Your task to perform on an android device: open wifi settings Image 0: 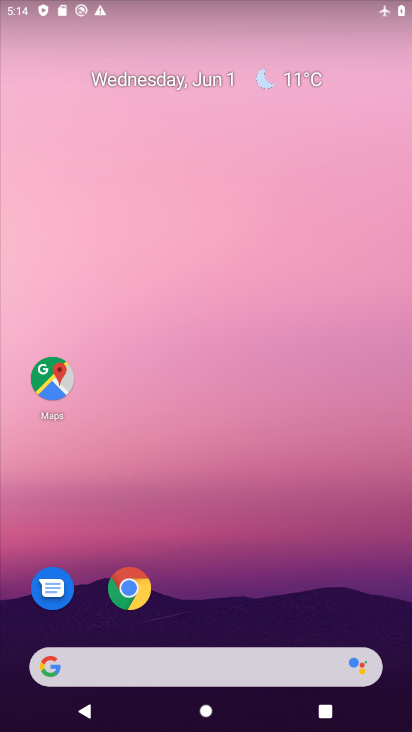
Step 0: drag from (212, 648) to (237, 200)
Your task to perform on an android device: open wifi settings Image 1: 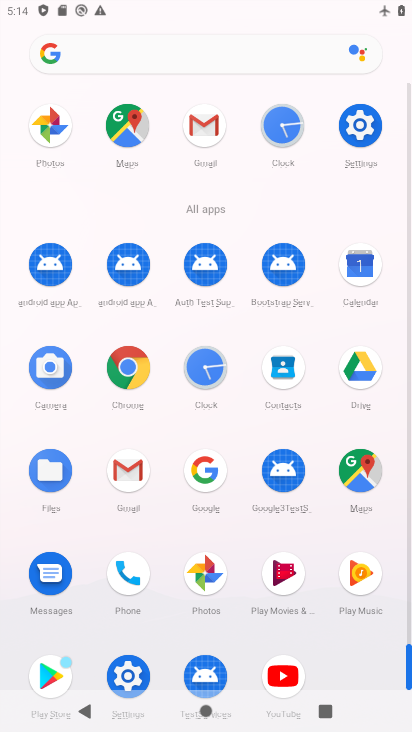
Step 1: drag from (153, 605) to (201, 303)
Your task to perform on an android device: open wifi settings Image 2: 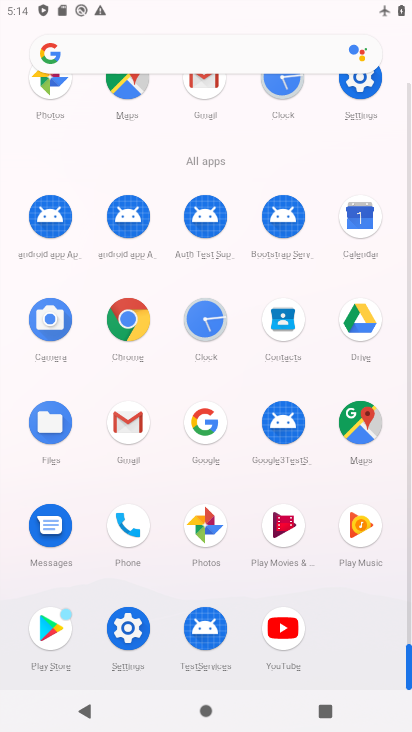
Step 2: click (122, 634)
Your task to perform on an android device: open wifi settings Image 3: 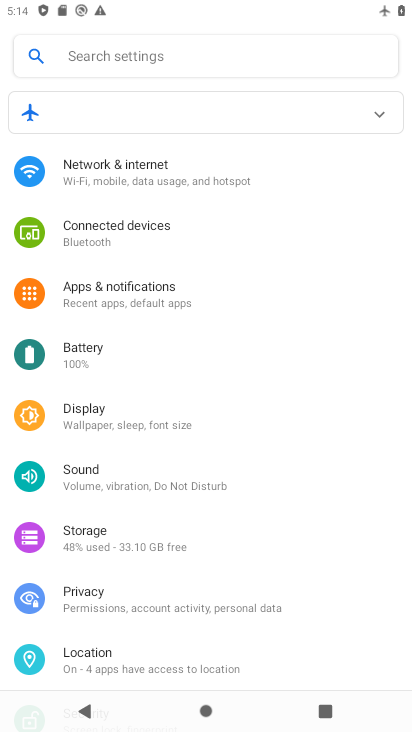
Step 3: click (160, 179)
Your task to perform on an android device: open wifi settings Image 4: 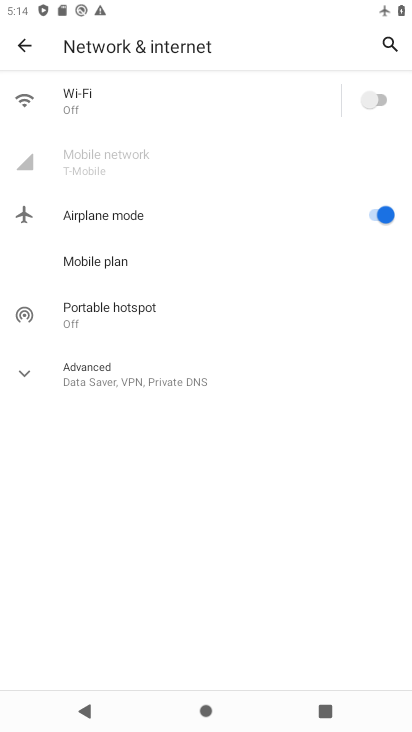
Step 4: click (194, 115)
Your task to perform on an android device: open wifi settings Image 5: 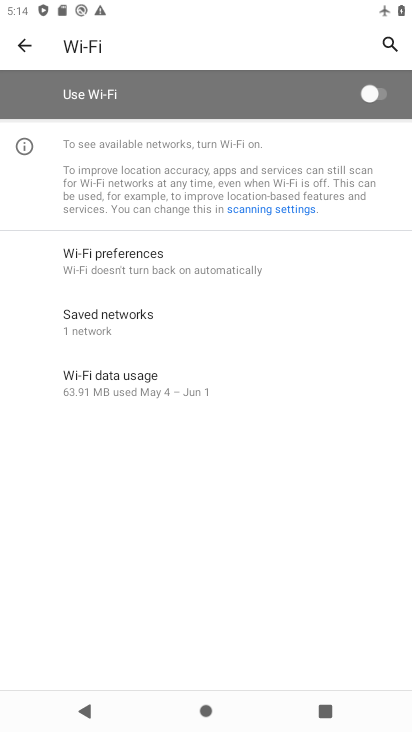
Step 5: task complete